Your task to perform on an android device: turn off improve location accuracy Image 0: 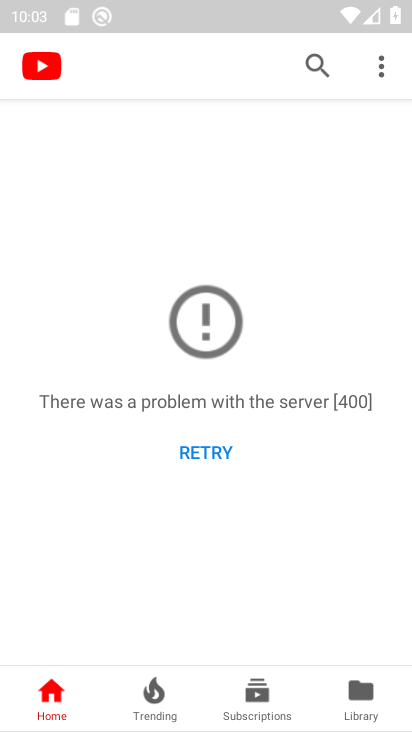
Step 0: press back button
Your task to perform on an android device: turn off improve location accuracy Image 1: 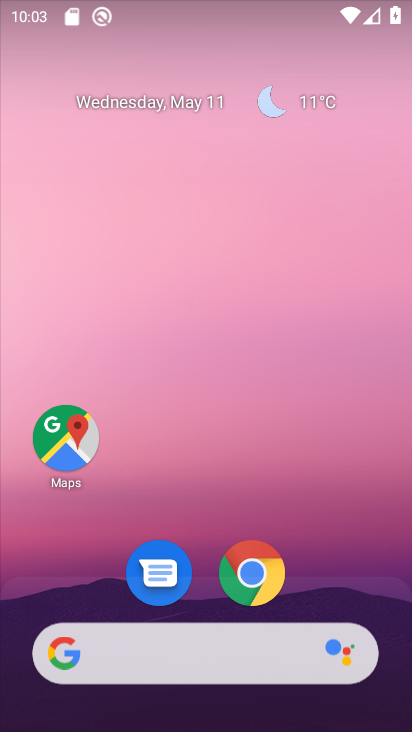
Step 1: drag from (190, 622) to (284, 35)
Your task to perform on an android device: turn off improve location accuracy Image 2: 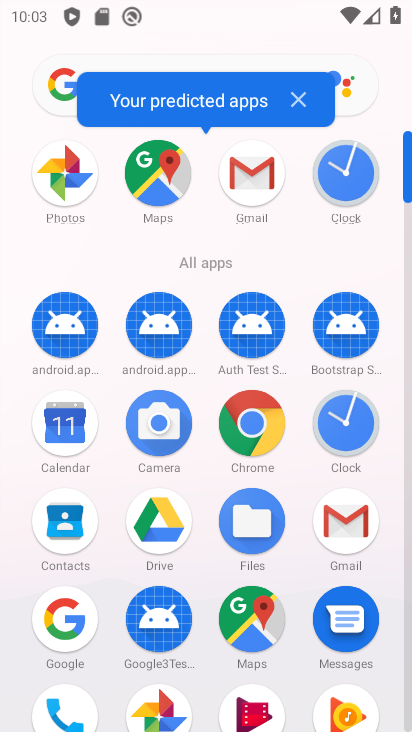
Step 2: drag from (106, 657) to (37, 142)
Your task to perform on an android device: turn off improve location accuracy Image 3: 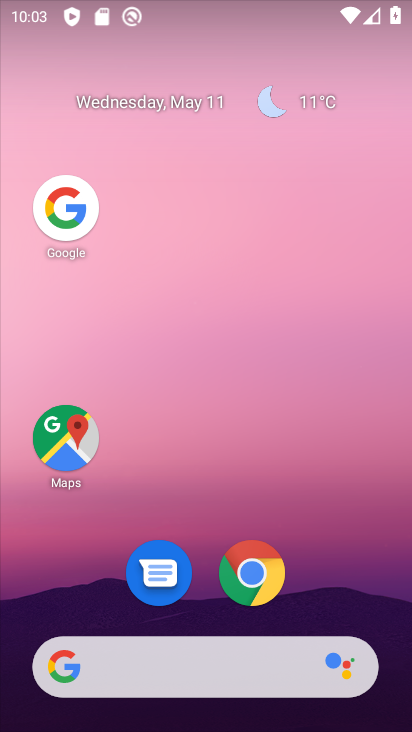
Step 3: drag from (212, 621) to (287, 48)
Your task to perform on an android device: turn off improve location accuracy Image 4: 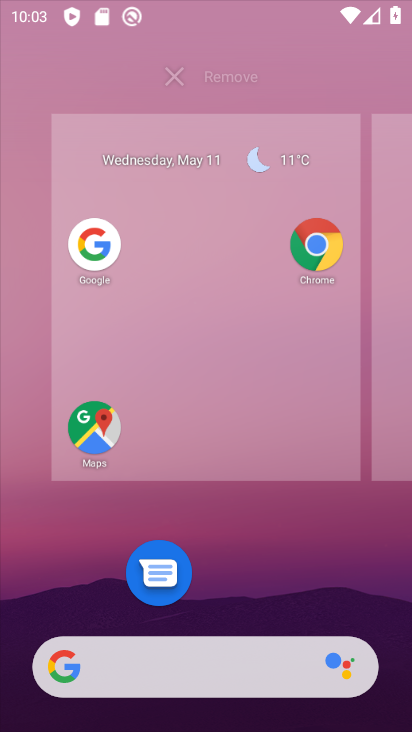
Step 4: click (246, 563)
Your task to perform on an android device: turn off improve location accuracy Image 5: 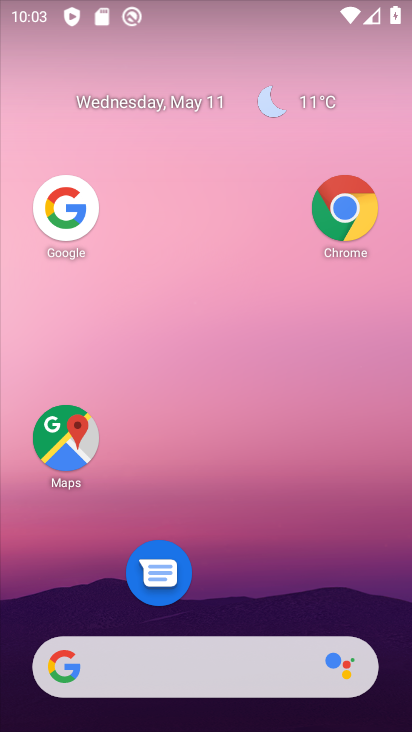
Step 5: drag from (240, 595) to (274, 7)
Your task to perform on an android device: turn off improve location accuracy Image 6: 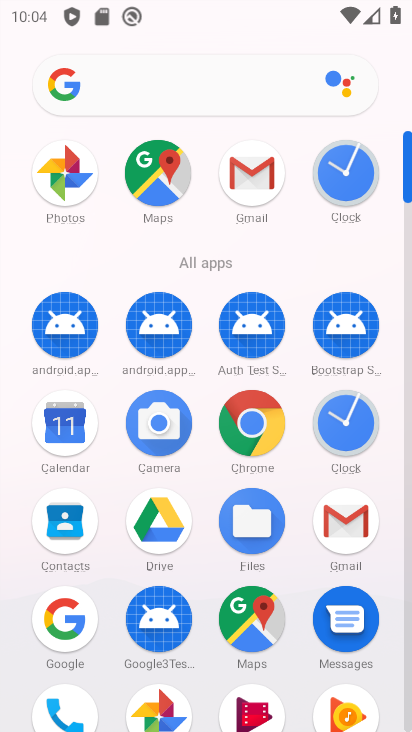
Step 6: drag from (204, 564) to (244, 23)
Your task to perform on an android device: turn off improve location accuracy Image 7: 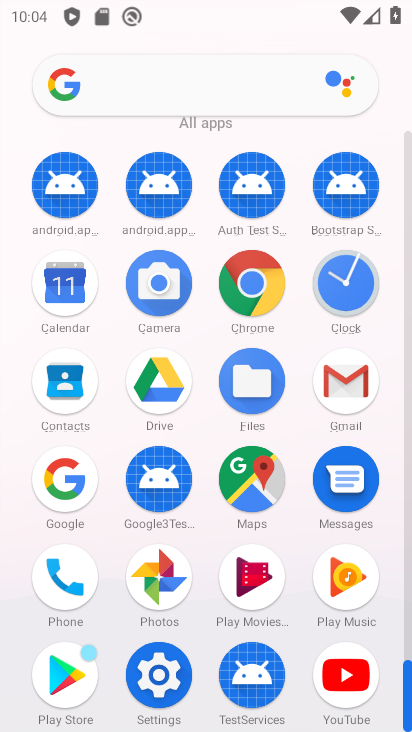
Step 7: click (147, 661)
Your task to perform on an android device: turn off improve location accuracy Image 8: 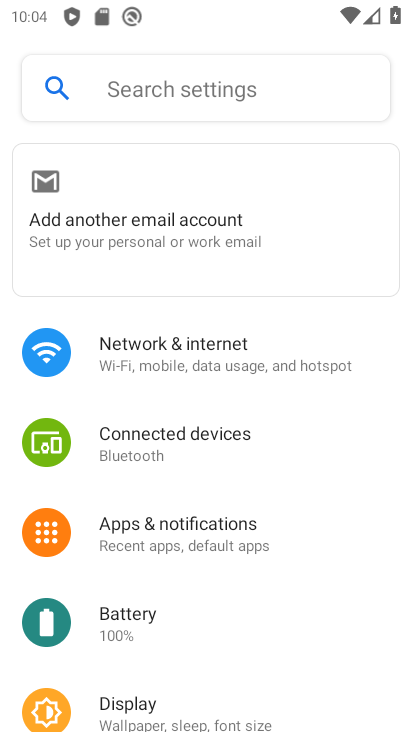
Step 8: drag from (201, 571) to (203, 93)
Your task to perform on an android device: turn off improve location accuracy Image 9: 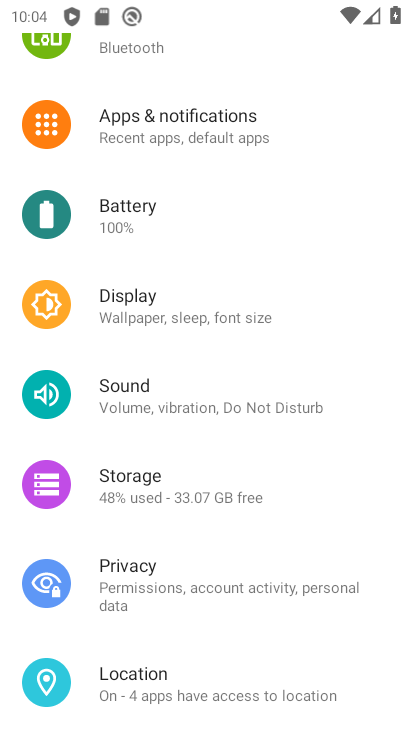
Step 9: click (160, 697)
Your task to perform on an android device: turn off improve location accuracy Image 10: 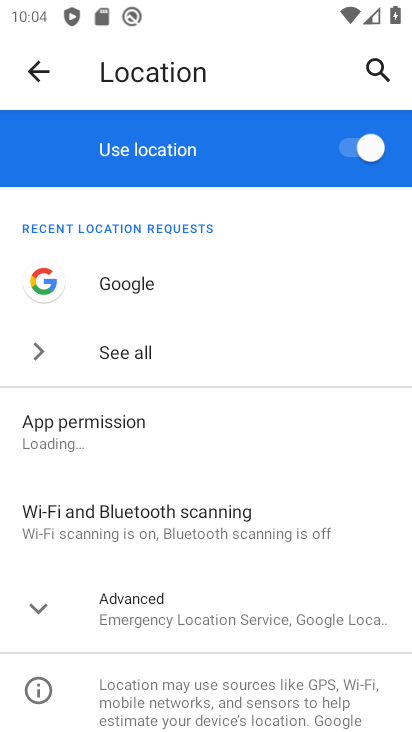
Step 10: click (148, 614)
Your task to perform on an android device: turn off improve location accuracy Image 11: 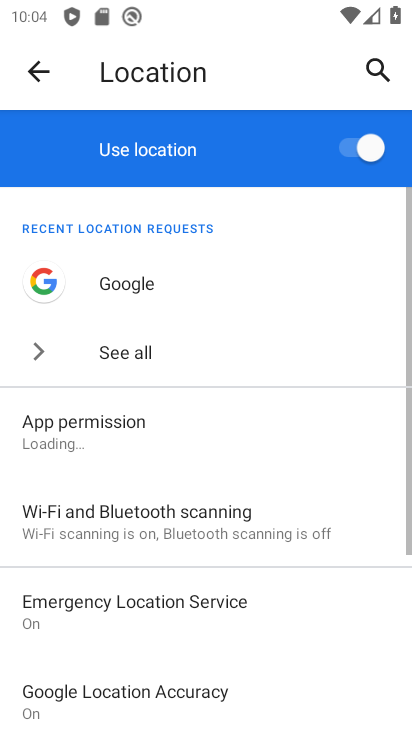
Step 11: drag from (148, 614) to (152, 61)
Your task to perform on an android device: turn off improve location accuracy Image 12: 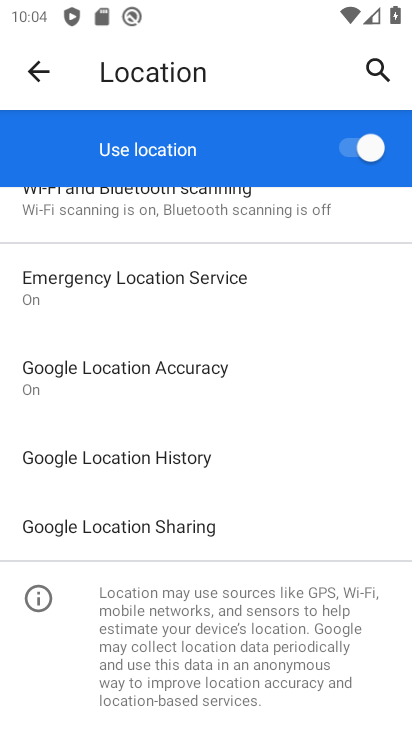
Step 12: click (101, 366)
Your task to perform on an android device: turn off improve location accuracy Image 13: 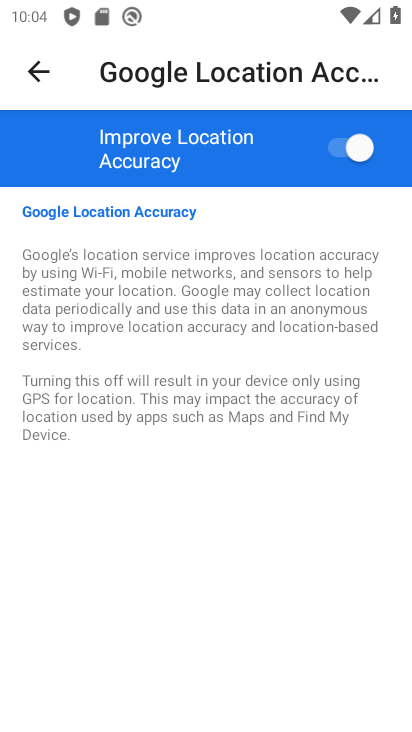
Step 13: click (344, 130)
Your task to perform on an android device: turn off improve location accuracy Image 14: 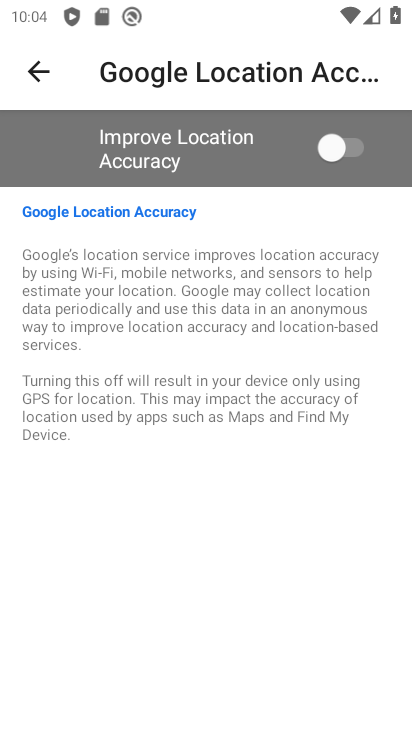
Step 14: task complete